Your task to perform on an android device: Open Wikipedia Image 0: 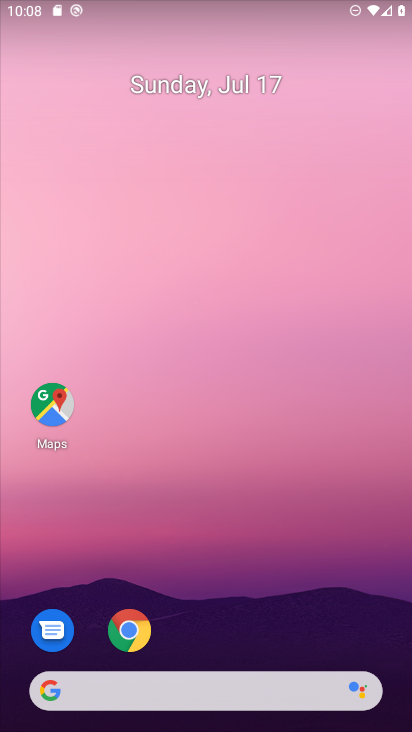
Step 0: click (135, 642)
Your task to perform on an android device: Open Wikipedia Image 1: 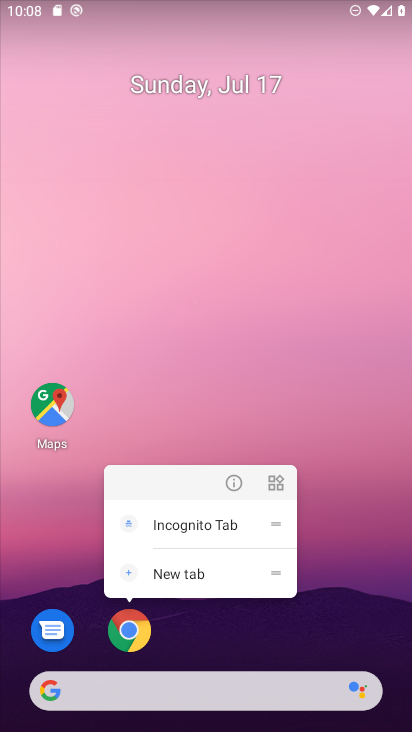
Step 1: click (138, 642)
Your task to perform on an android device: Open Wikipedia Image 2: 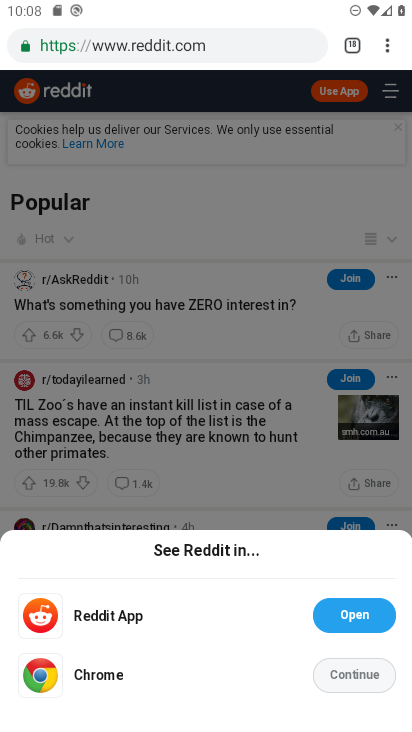
Step 2: click (391, 41)
Your task to perform on an android device: Open Wikipedia Image 3: 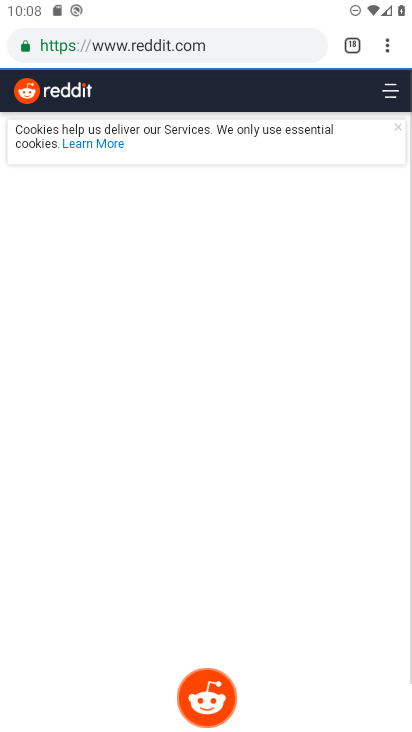
Step 3: click (391, 41)
Your task to perform on an android device: Open Wikipedia Image 4: 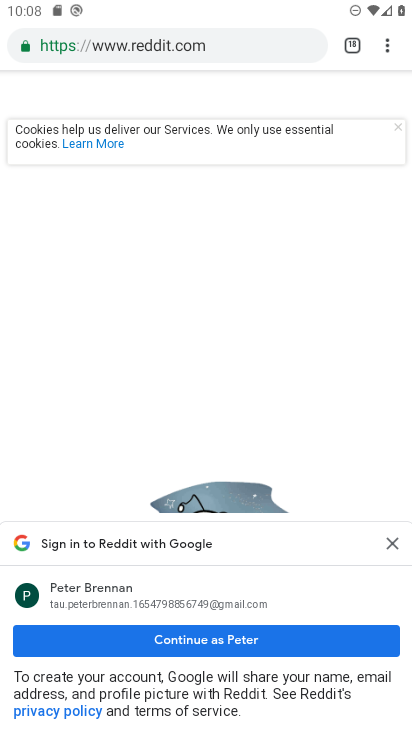
Step 4: click (391, 41)
Your task to perform on an android device: Open Wikipedia Image 5: 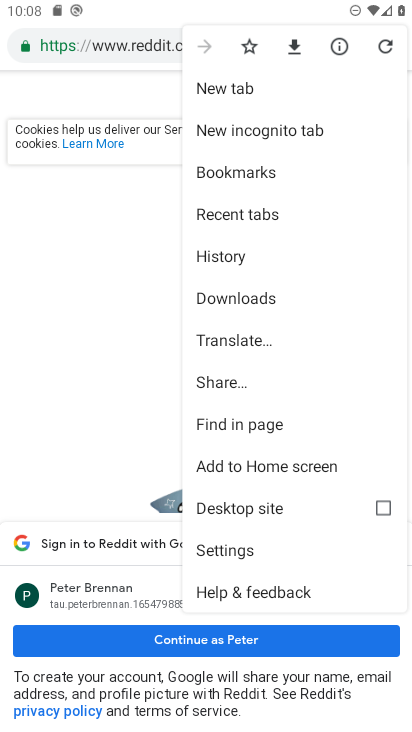
Step 5: click (239, 88)
Your task to perform on an android device: Open Wikipedia Image 6: 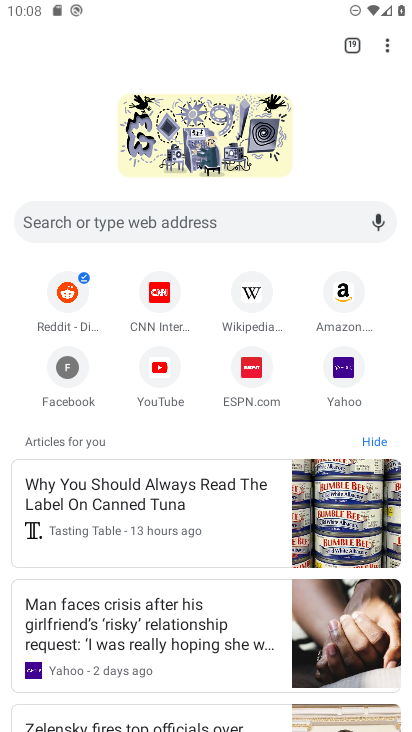
Step 6: click (242, 288)
Your task to perform on an android device: Open Wikipedia Image 7: 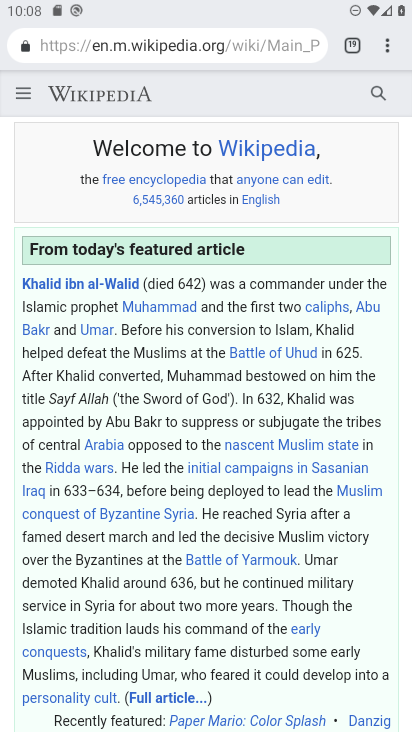
Step 7: task complete